Your task to perform on an android device: Go to display settings Image 0: 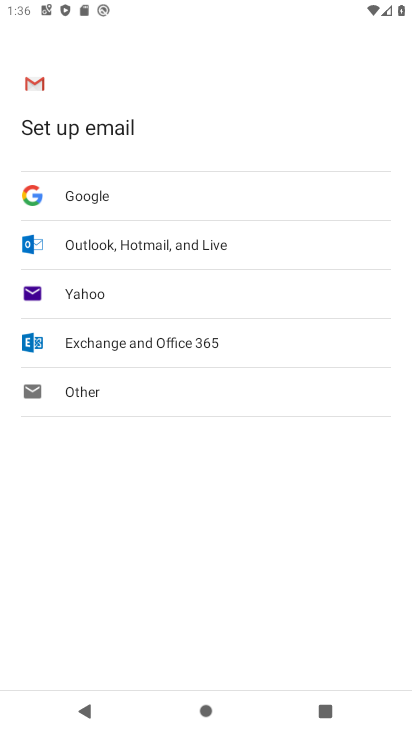
Step 0: press home button
Your task to perform on an android device: Go to display settings Image 1: 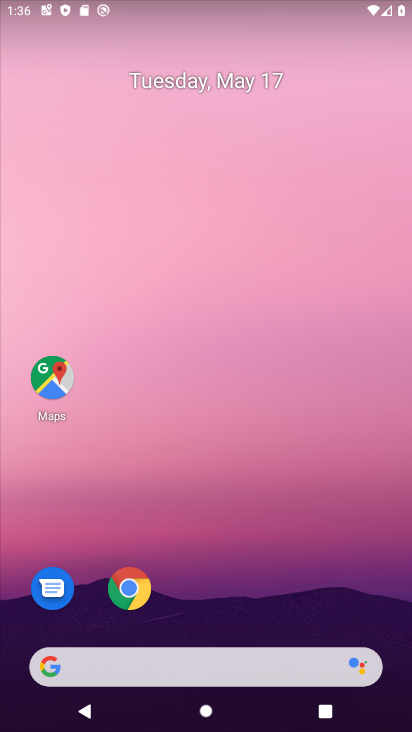
Step 1: drag from (215, 544) to (201, 224)
Your task to perform on an android device: Go to display settings Image 2: 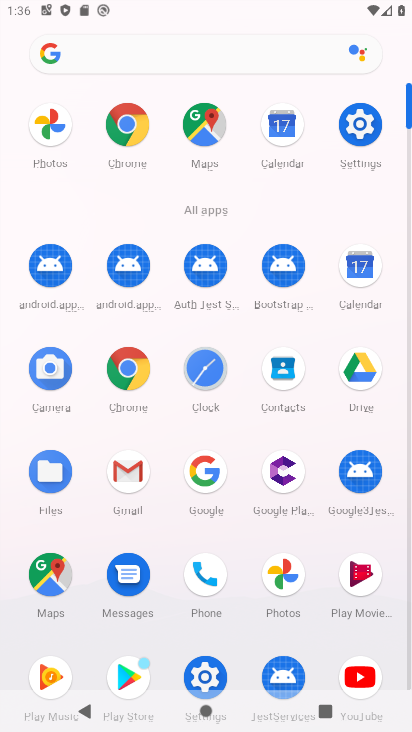
Step 2: click (210, 656)
Your task to perform on an android device: Go to display settings Image 3: 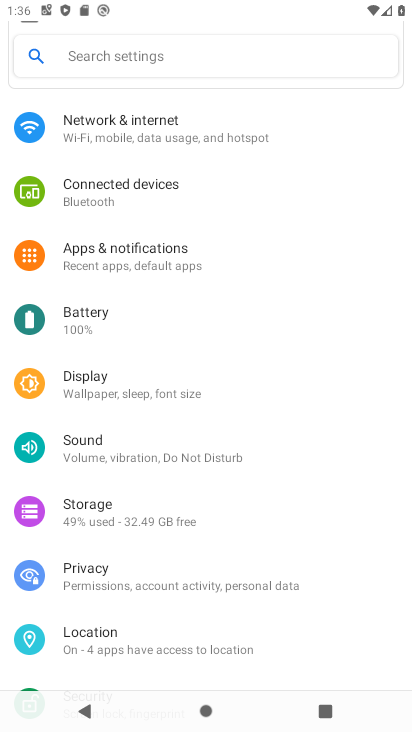
Step 3: click (130, 374)
Your task to perform on an android device: Go to display settings Image 4: 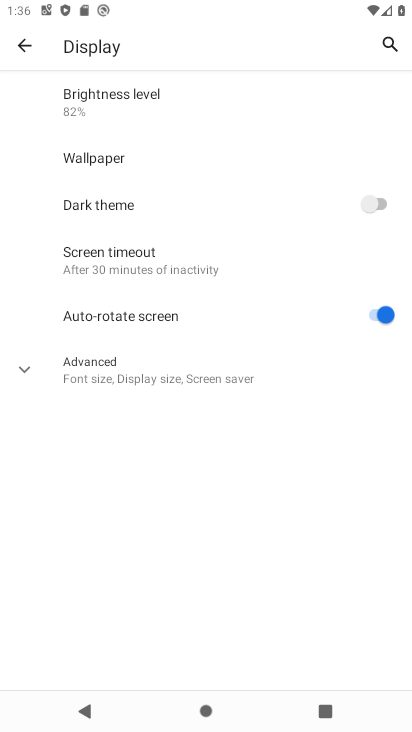
Step 4: click (165, 381)
Your task to perform on an android device: Go to display settings Image 5: 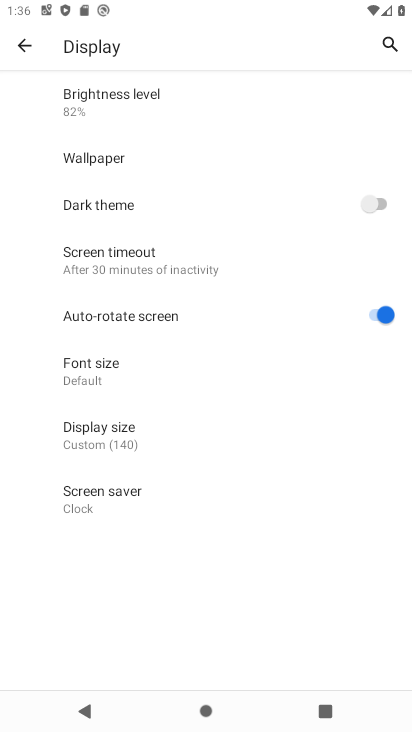
Step 5: task complete